Your task to perform on an android device: Go to location settings Image 0: 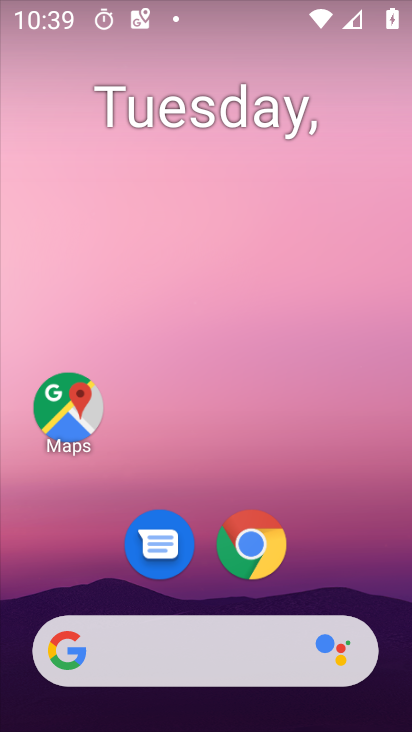
Step 0: drag from (322, 594) to (318, 202)
Your task to perform on an android device: Go to location settings Image 1: 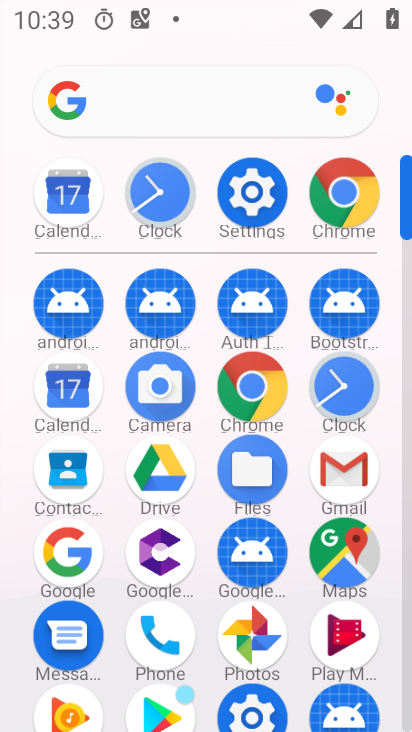
Step 1: click (263, 196)
Your task to perform on an android device: Go to location settings Image 2: 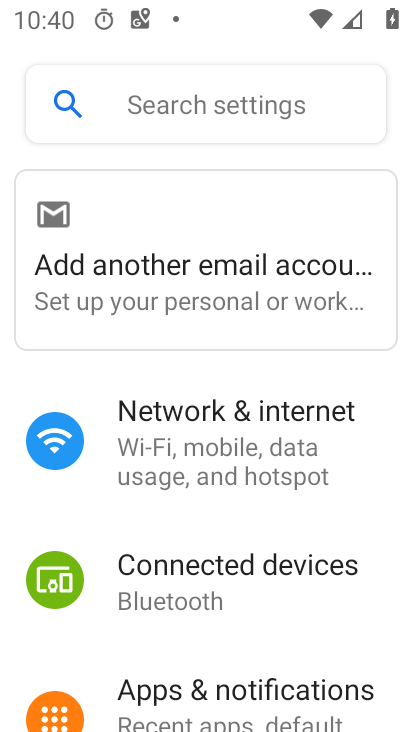
Step 2: drag from (295, 647) to (261, 114)
Your task to perform on an android device: Go to location settings Image 3: 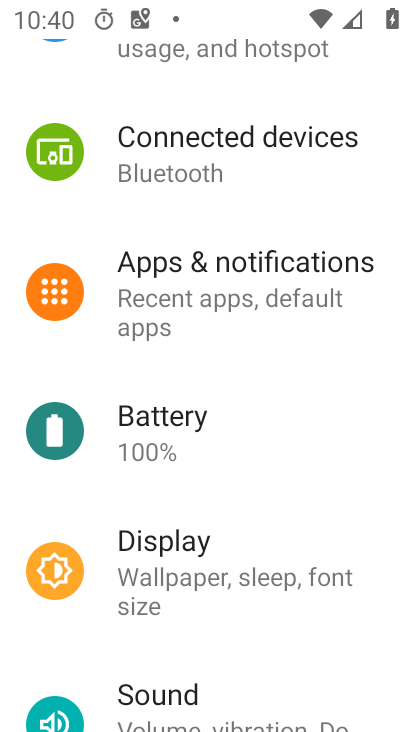
Step 3: drag from (294, 643) to (259, 190)
Your task to perform on an android device: Go to location settings Image 4: 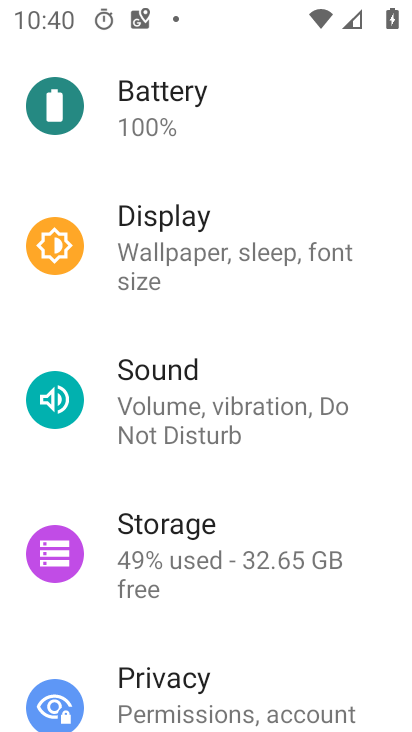
Step 4: drag from (266, 620) to (231, 196)
Your task to perform on an android device: Go to location settings Image 5: 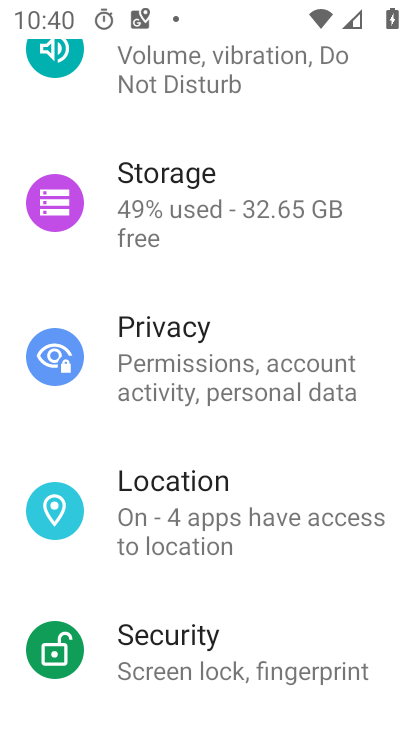
Step 5: click (269, 552)
Your task to perform on an android device: Go to location settings Image 6: 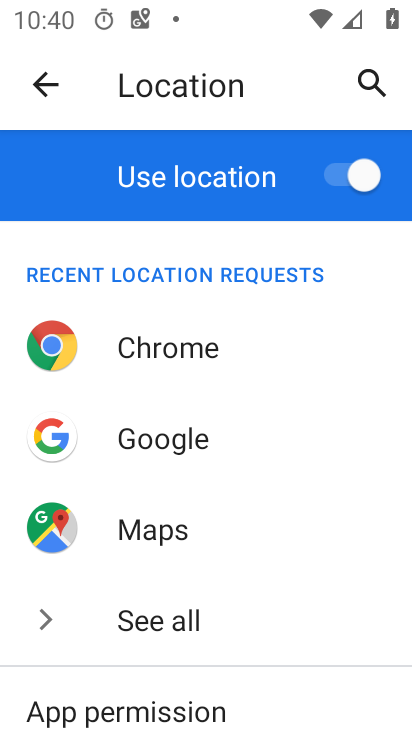
Step 6: task complete